Your task to perform on an android device: turn notification dots off Image 0: 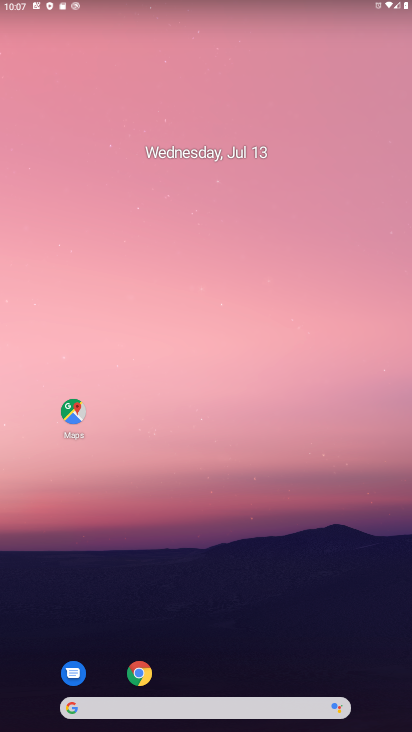
Step 0: drag from (215, 644) to (199, 59)
Your task to perform on an android device: turn notification dots off Image 1: 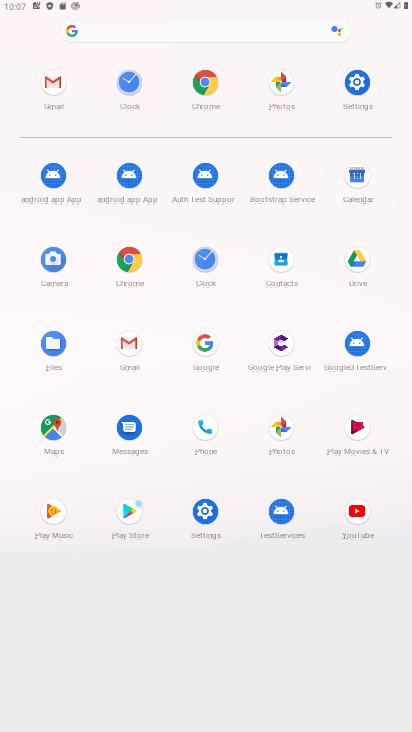
Step 1: click (366, 89)
Your task to perform on an android device: turn notification dots off Image 2: 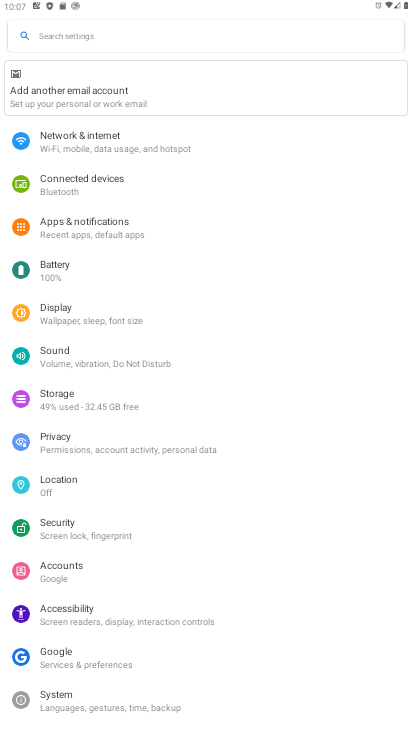
Step 2: click (94, 218)
Your task to perform on an android device: turn notification dots off Image 3: 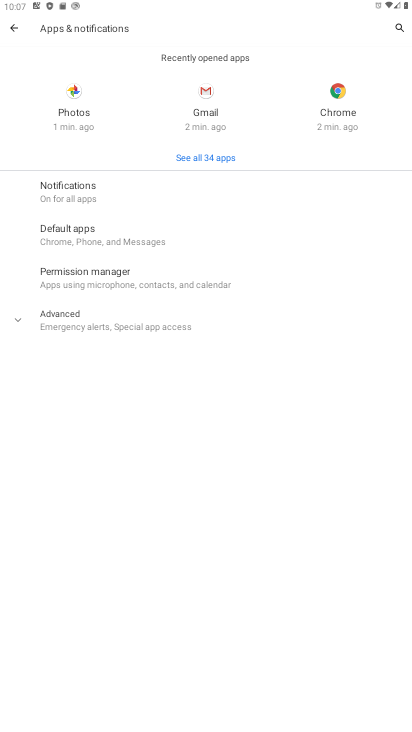
Step 3: click (71, 179)
Your task to perform on an android device: turn notification dots off Image 4: 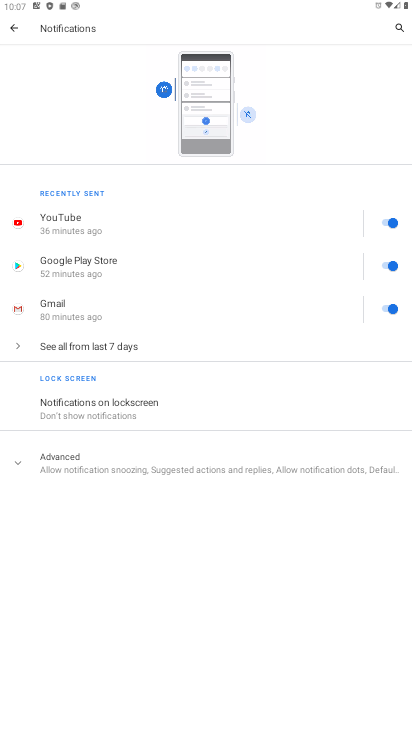
Step 4: click (110, 468)
Your task to perform on an android device: turn notification dots off Image 5: 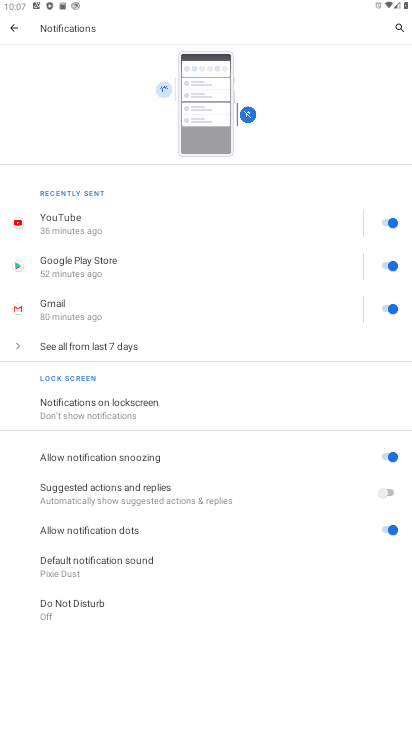
Step 5: click (394, 528)
Your task to perform on an android device: turn notification dots off Image 6: 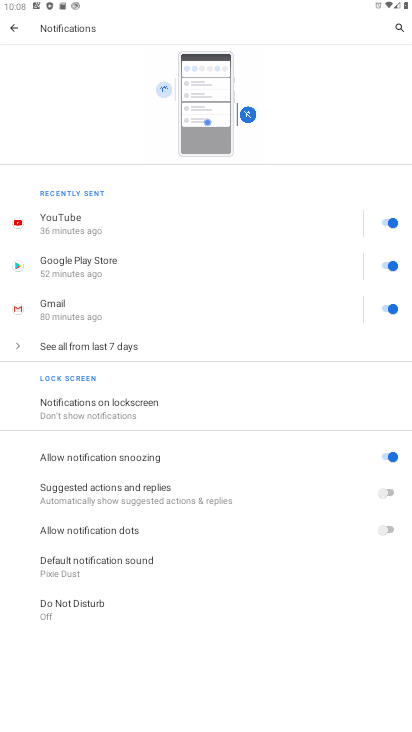
Step 6: task complete